Your task to perform on an android device: When is my next appointment? Image 0: 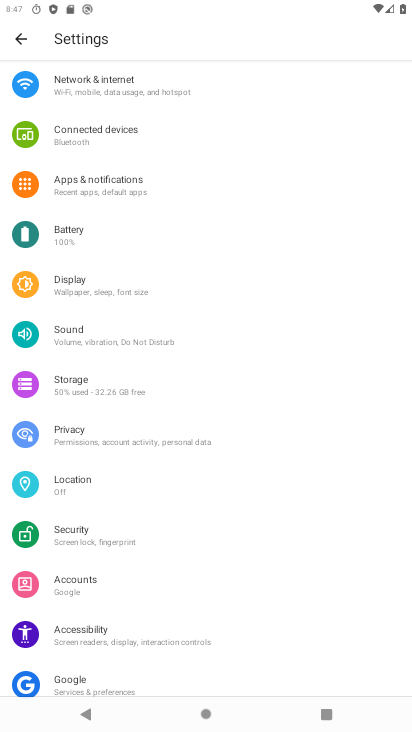
Step 0: press home button
Your task to perform on an android device: When is my next appointment? Image 1: 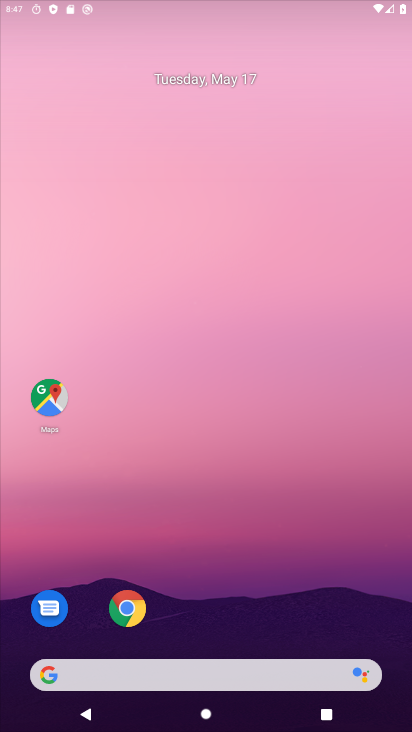
Step 1: drag from (364, 559) to (312, 174)
Your task to perform on an android device: When is my next appointment? Image 2: 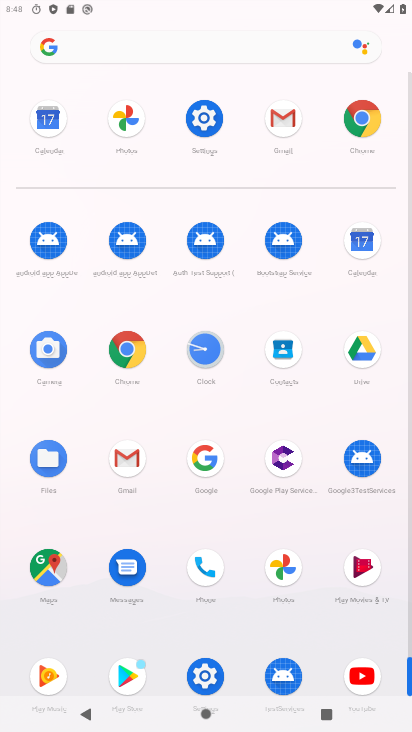
Step 2: click (347, 233)
Your task to perform on an android device: When is my next appointment? Image 3: 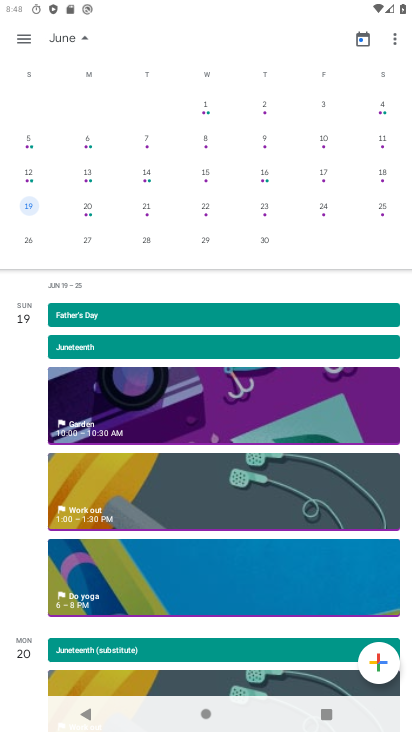
Step 3: drag from (128, 565) to (137, 301)
Your task to perform on an android device: When is my next appointment? Image 4: 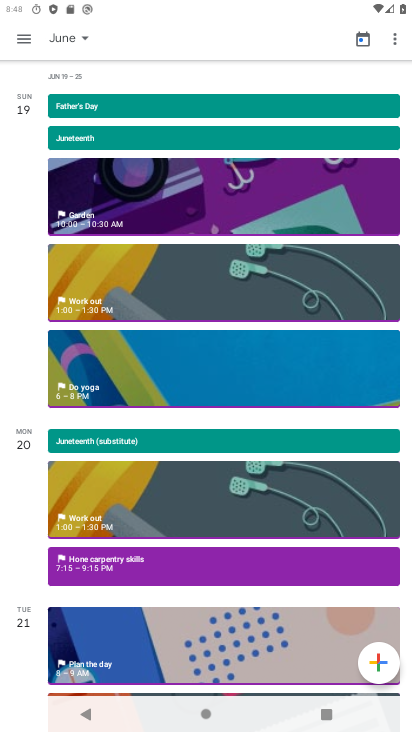
Step 4: drag from (218, 596) to (262, 233)
Your task to perform on an android device: When is my next appointment? Image 5: 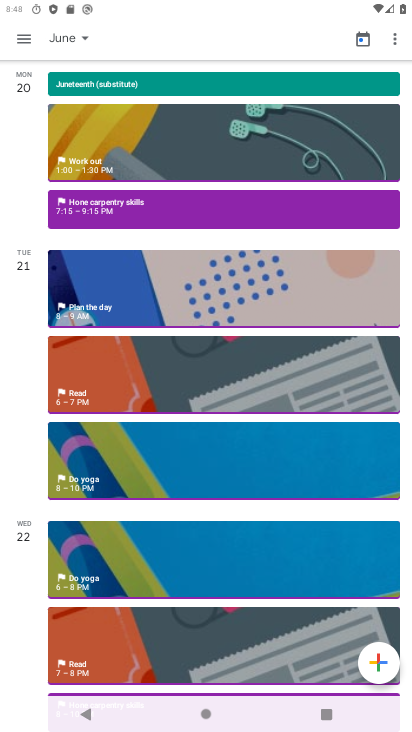
Step 5: drag from (245, 623) to (266, 237)
Your task to perform on an android device: When is my next appointment? Image 6: 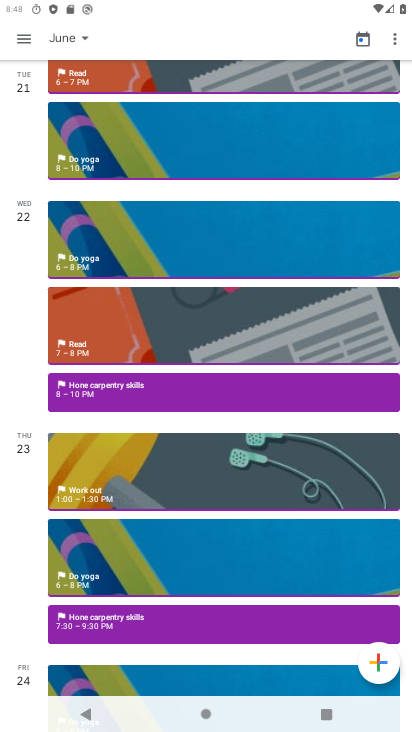
Step 6: drag from (189, 612) to (208, 246)
Your task to perform on an android device: When is my next appointment? Image 7: 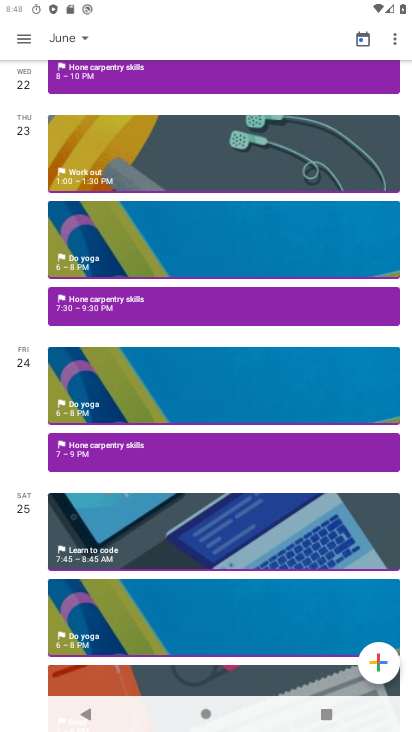
Step 7: drag from (198, 584) to (239, 276)
Your task to perform on an android device: When is my next appointment? Image 8: 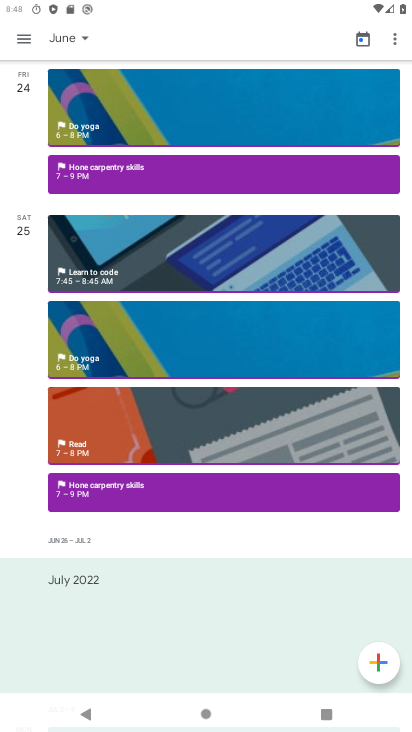
Step 8: drag from (239, 589) to (235, 180)
Your task to perform on an android device: When is my next appointment? Image 9: 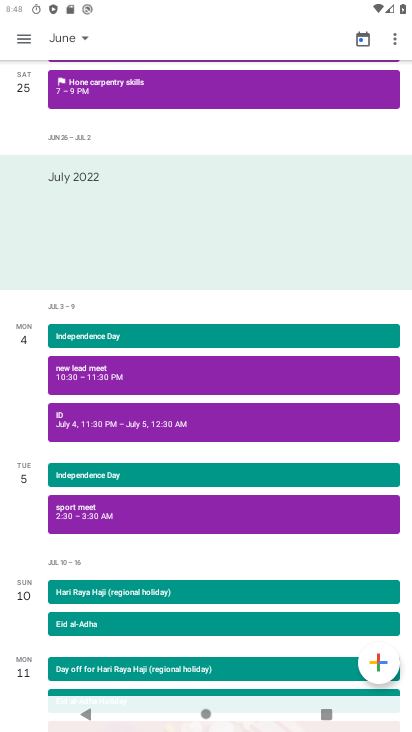
Step 9: click (125, 511)
Your task to perform on an android device: When is my next appointment? Image 10: 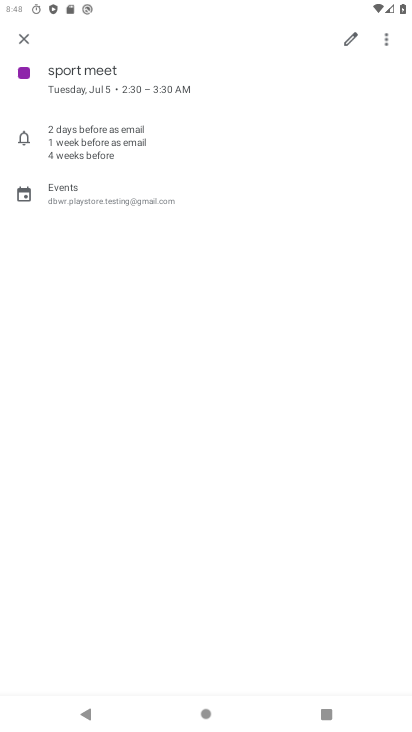
Step 10: task complete